Your task to perform on an android device: View the shopping cart on target.com. Search for usb-c to usb-b on target.com, select the first entry, add it to the cart, then select checkout. Image 0: 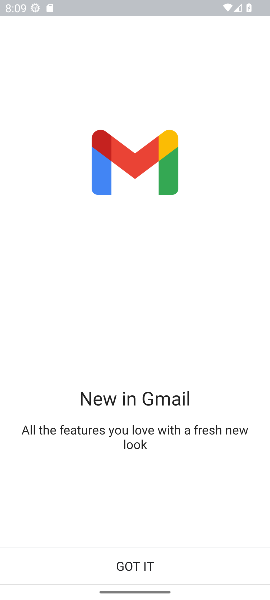
Step 0: press home button
Your task to perform on an android device: View the shopping cart on target.com. Search for usb-c to usb-b on target.com, select the first entry, add it to the cart, then select checkout. Image 1: 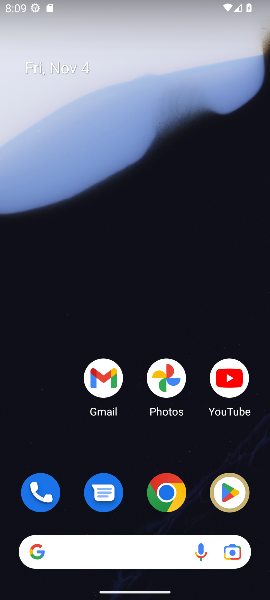
Step 1: drag from (145, 447) to (167, 81)
Your task to perform on an android device: View the shopping cart on target.com. Search for usb-c to usb-b on target.com, select the first entry, add it to the cart, then select checkout. Image 2: 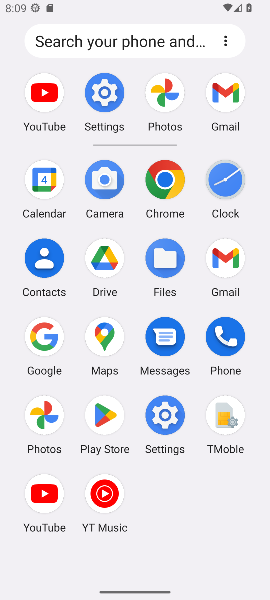
Step 2: click (159, 184)
Your task to perform on an android device: View the shopping cart on target.com. Search for usb-c to usb-b on target.com, select the first entry, add it to the cart, then select checkout. Image 3: 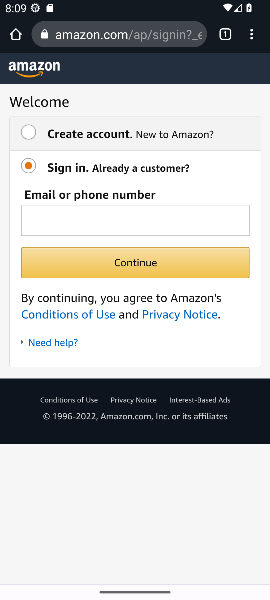
Step 3: click (158, 45)
Your task to perform on an android device: View the shopping cart on target.com. Search for usb-c to usb-b on target.com, select the first entry, add it to the cart, then select checkout. Image 4: 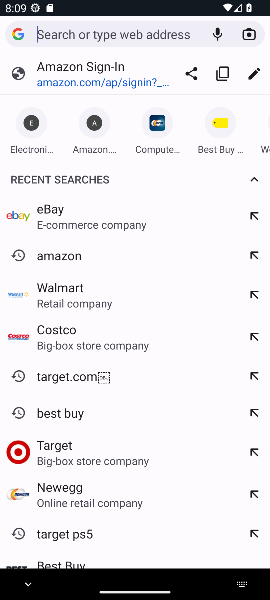
Step 4: type "target.com"
Your task to perform on an android device: View the shopping cart on target.com. Search for usb-c to usb-b on target.com, select the first entry, add it to the cart, then select checkout. Image 5: 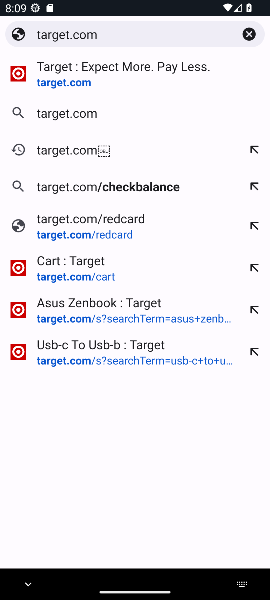
Step 5: press enter
Your task to perform on an android device: View the shopping cart on target.com. Search for usb-c to usb-b on target.com, select the first entry, add it to the cart, then select checkout. Image 6: 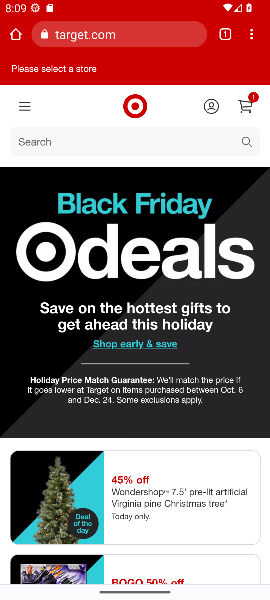
Step 6: click (247, 103)
Your task to perform on an android device: View the shopping cart on target.com. Search for usb-c to usb-b on target.com, select the first entry, add it to the cart, then select checkout. Image 7: 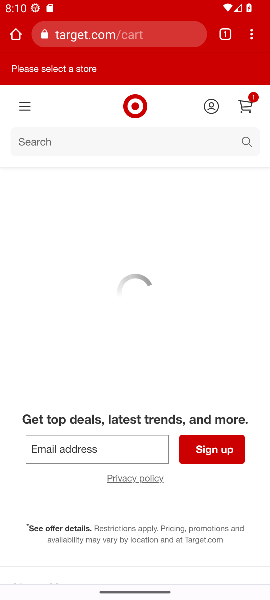
Step 7: click (126, 148)
Your task to perform on an android device: View the shopping cart on target.com. Search for usb-c to usb-b on target.com, select the first entry, add it to the cart, then select checkout. Image 8: 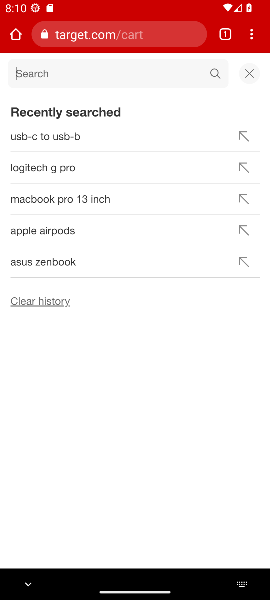
Step 8: type "usb-c to usb-b"
Your task to perform on an android device: View the shopping cart on target.com. Search for usb-c to usb-b on target.com, select the first entry, add it to the cart, then select checkout. Image 9: 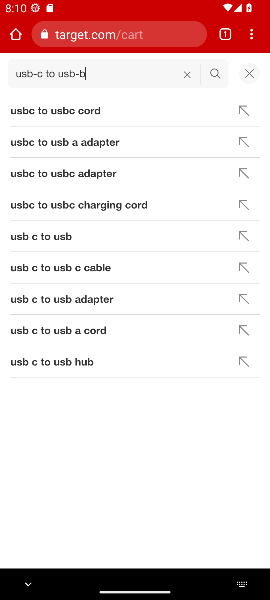
Step 9: press enter
Your task to perform on an android device: View the shopping cart on target.com. Search for usb-c to usb-b on target.com, select the first entry, add it to the cart, then select checkout. Image 10: 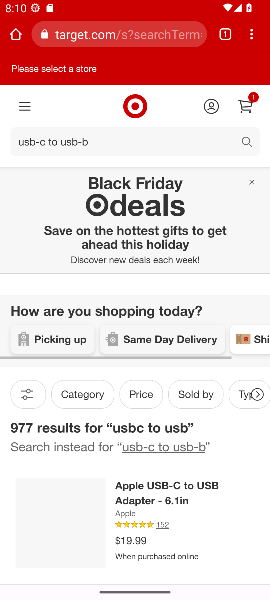
Step 10: task complete